Your task to perform on an android device: Open Google Image 0: 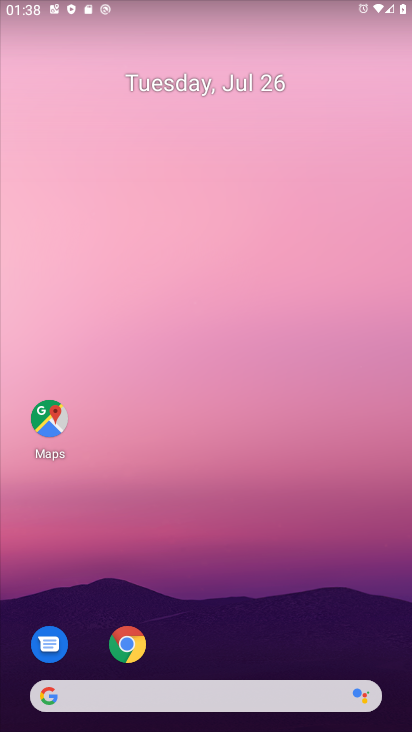
Step 0: drag from (211, 629) to (247, 86)
Your task to perform on an android device: Open Google Image 1: 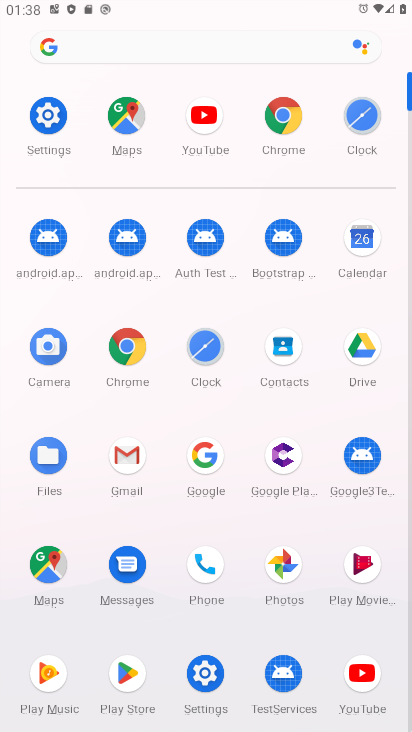
Step 1: click (197, 446)
Your task to perform on an android device: Open Google Image 2: 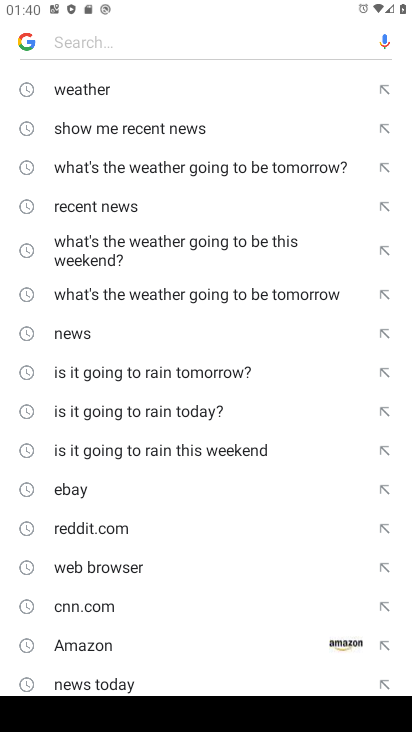
Step 2: task complete